Your task to perform on an android device: change notifications settings Image 0: 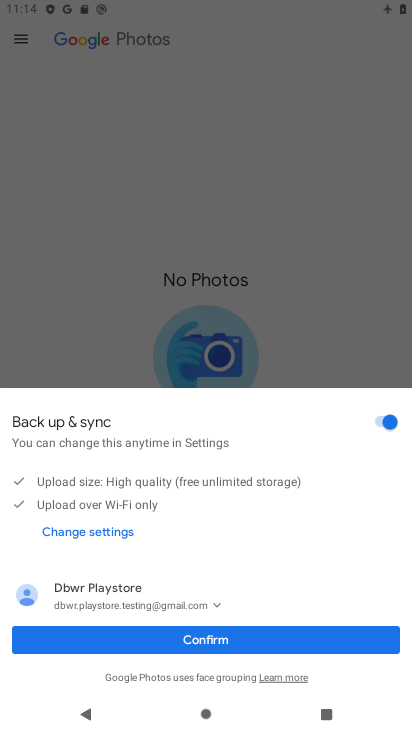
Step 0: press home button
Your task to perform on an android device: change notifications settings Image 1: 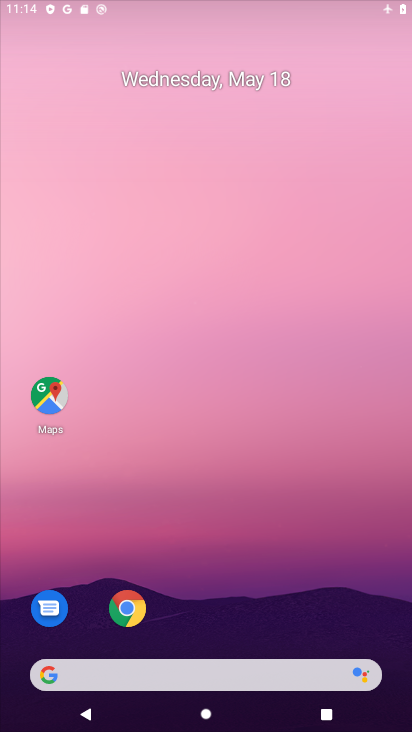
Step 1: drag from (209, 623) to (89, 134)
Your task to perform on an android device: change notifications settings Image 2: 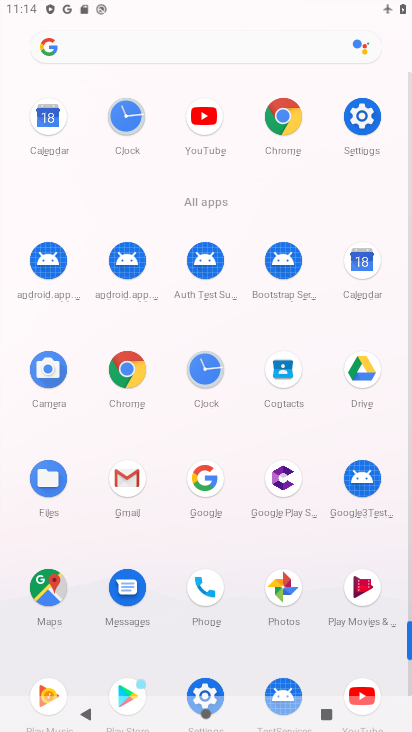
Step 2: click (205, 688)
Your task to perform on an android device: change notifications settings Image 3: 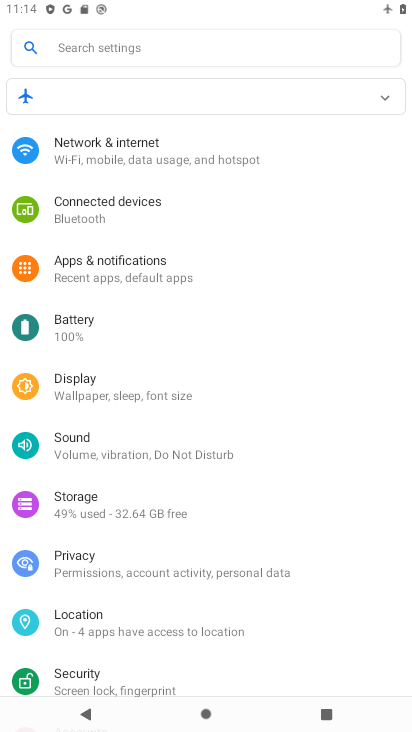
Step 3: click (172, 269)
Your task to perform on an android device: change notifications settings Image 4: 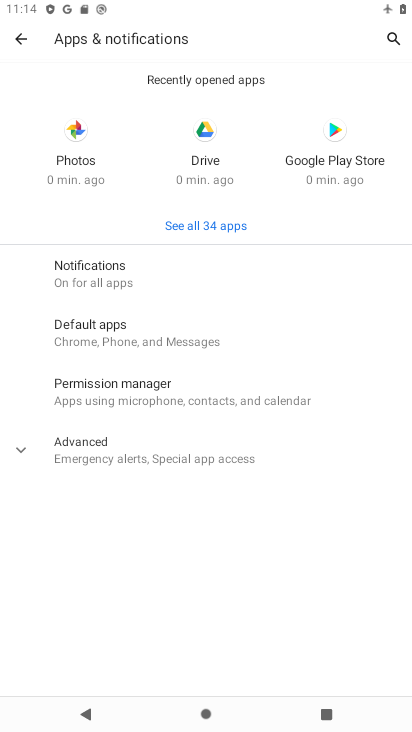
Step 4: click (118, 287)
Your task to perform on an android device: change notifications settings Image 5: 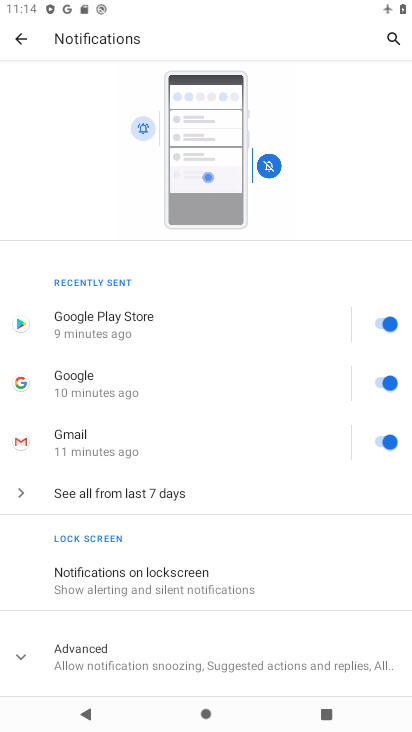
Step 5: click (396, 383)
Your task to perform on an android device: change notifications settings Image 6: 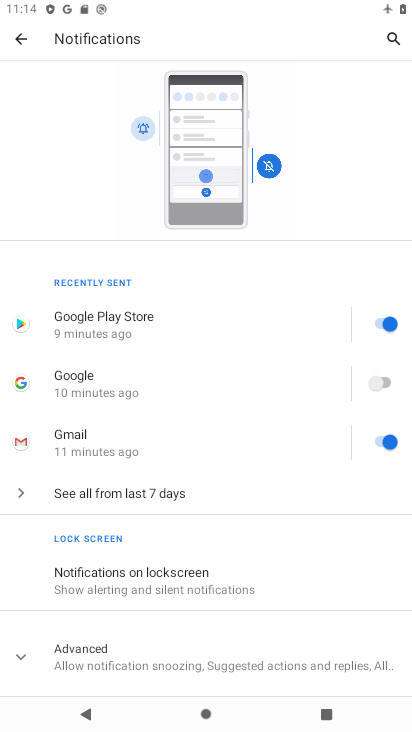
Step 6: click (393, 445)
Your task to perform on an android device: change notifications settings Image 7: 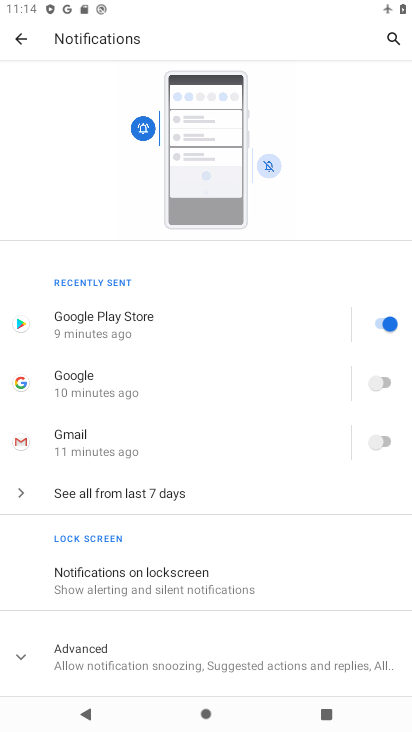
Step 7: click (391, 323)
Your task to perform on an android device: change notifications settings Image 8: 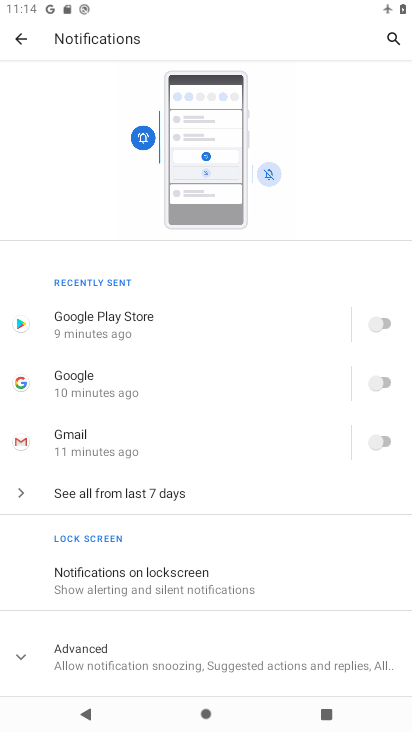
Step 8: task complete